Your task to perform on an android device: Go to CNN.com Image 0: 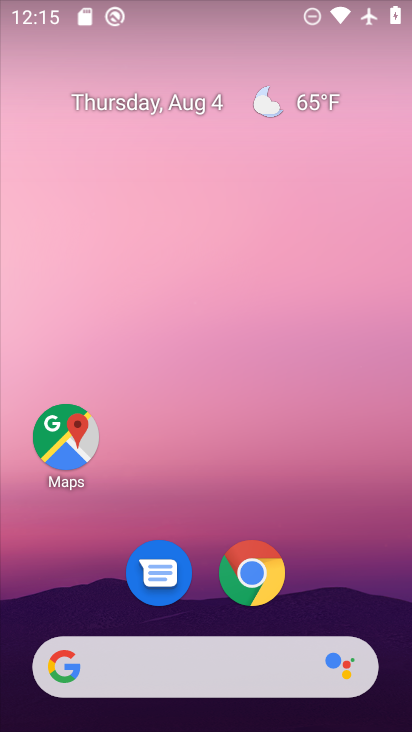
Step 0: drag from (333, 590) to (279, 158)
Your task to perform on an android device: Go to CNN.com Image 1: 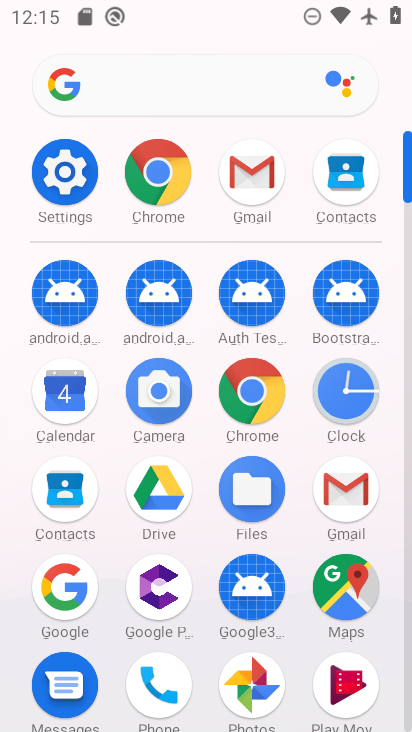
Step 1: click (241, 390)
Your task to perform on an android device: Go to CNN.com Image 2: 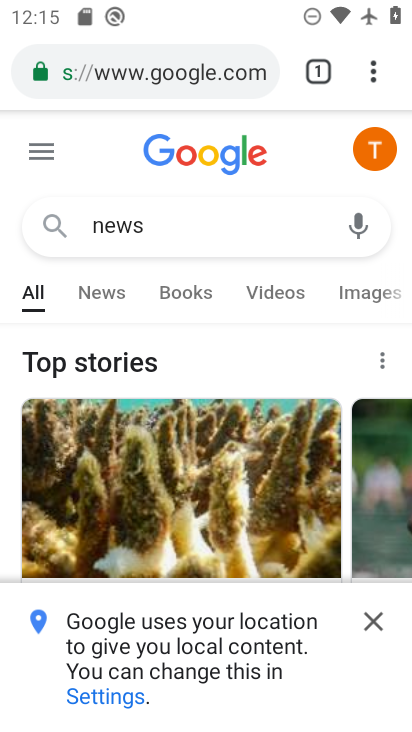
Step 2: click (194, 71)
Your task to perform on an android device: Go to CNN.com Image 3: 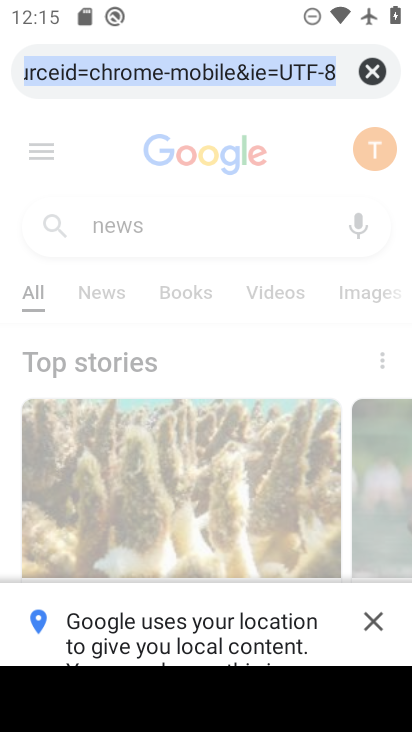
Step 3: type "cnn.com"
Your task to perform on an android device: Go to CNN.com Image 4: 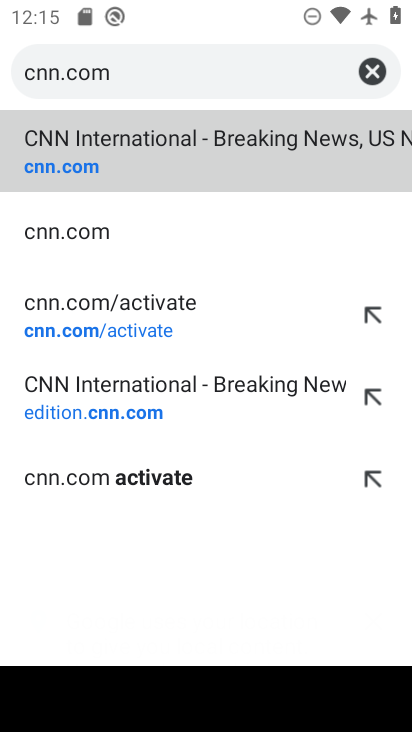
Step 4: click (107, 168)
Your task to perform on an android device: Go to CNN.com Image 5: 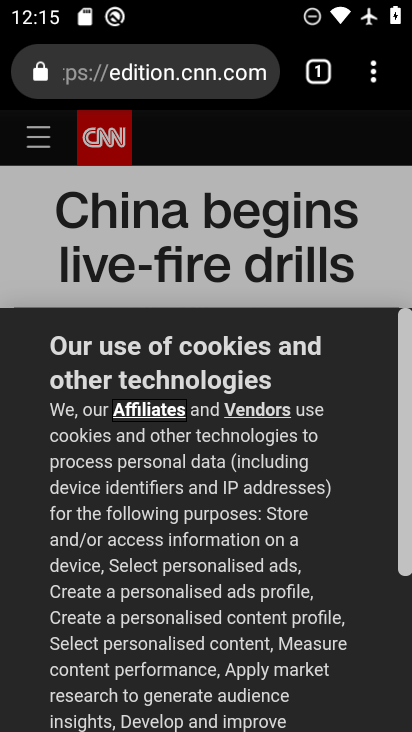
Step 5: task complete